Your task to perform on an android device: turn off improve location accuracy Image 0: 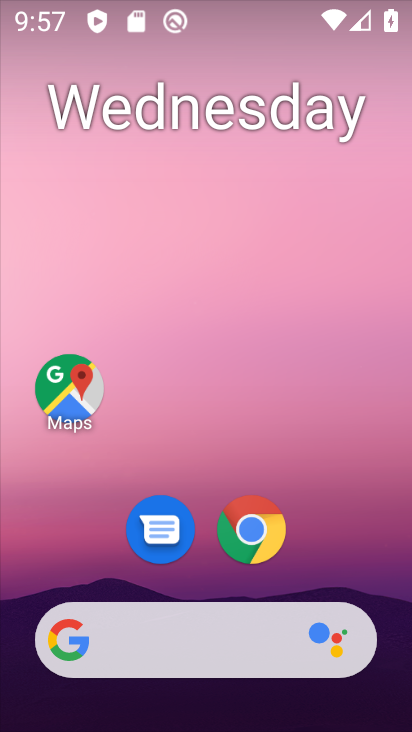
Step 0: drag from (250, 669) to (72, 60)
Your task to perform on an android device: turn off improve location accuracy Image 1: 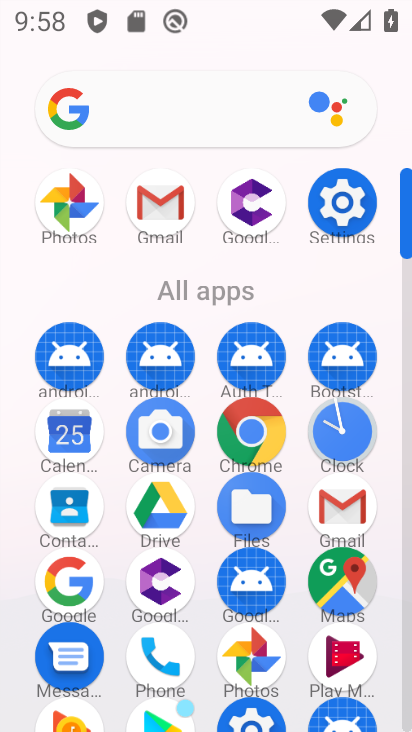
Step 1: drag from (309, 546) to (257, 292)
Your task to perform on an android device: turn off improve location accuracy Image 2: 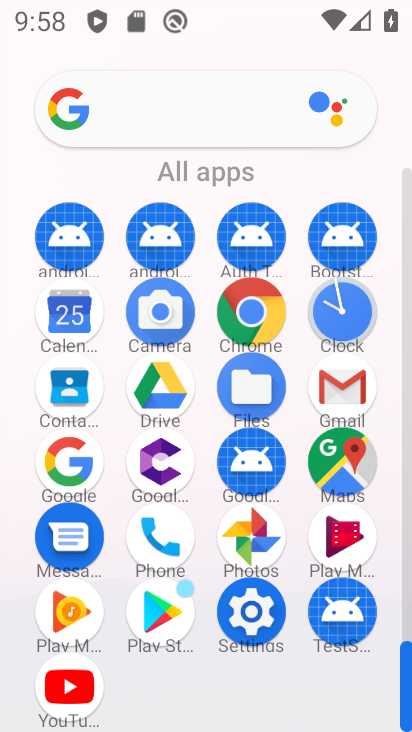
Step 2: drag from (270, 552) to (263, 316)
Your task to perform on an android device: turn off improve location accuracy Image 3: 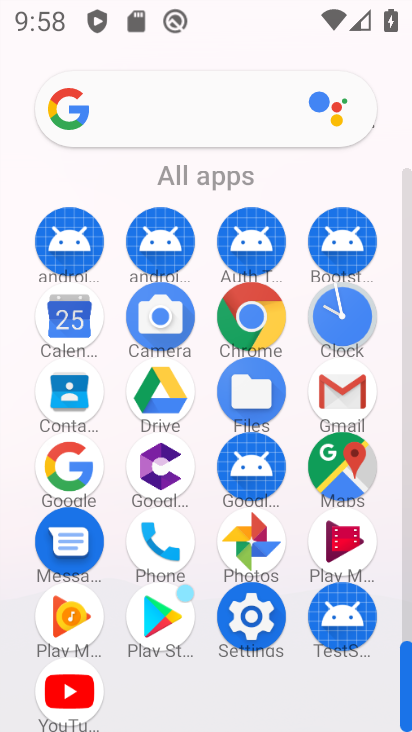
Step 3: click (251, 641)
Your task to perform on an android device: turn off improve location accuracy Image 4: 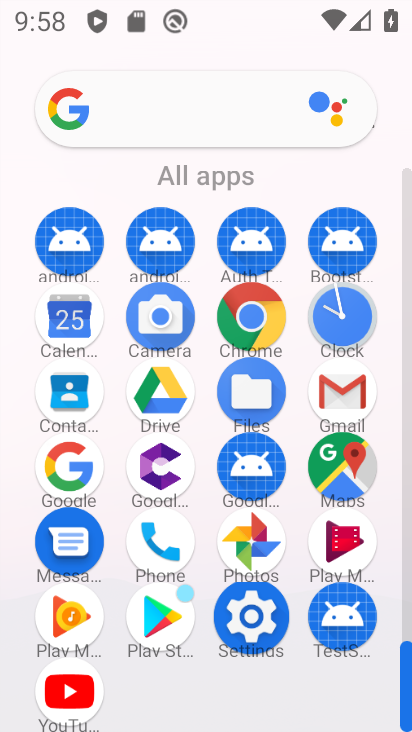
Step 4: click (250, 639)
Your task to perform on an android device: turn off improve location accuracy Image 5: 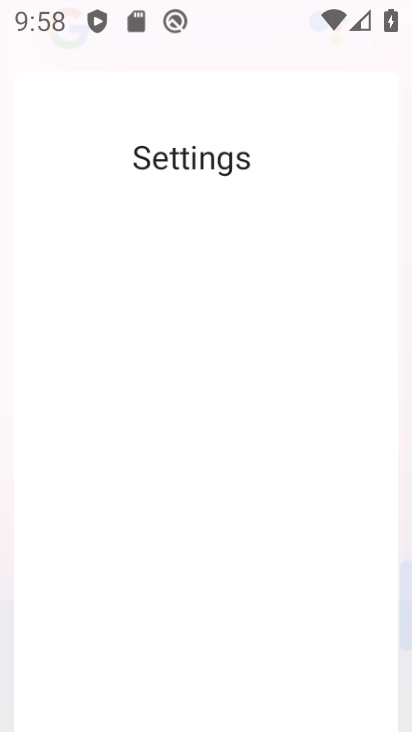
Step 5: click (250, 639)
Your task to perform on an android device: turn off improve location accuracy Image 6: 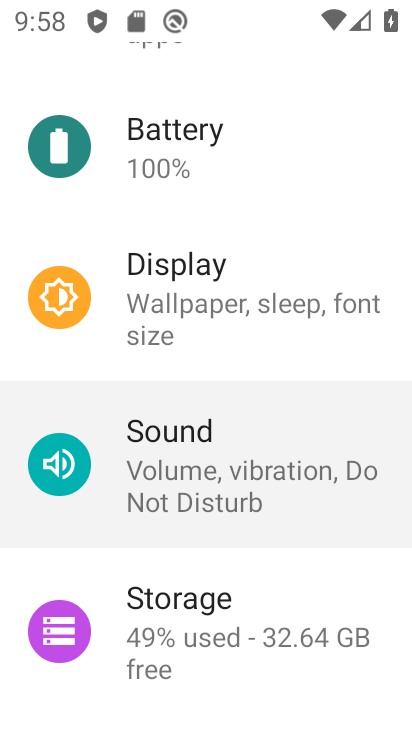
Step 6: click (253, 636)
Your task to perform on an android device: turn off improve location accuracy Image 7: 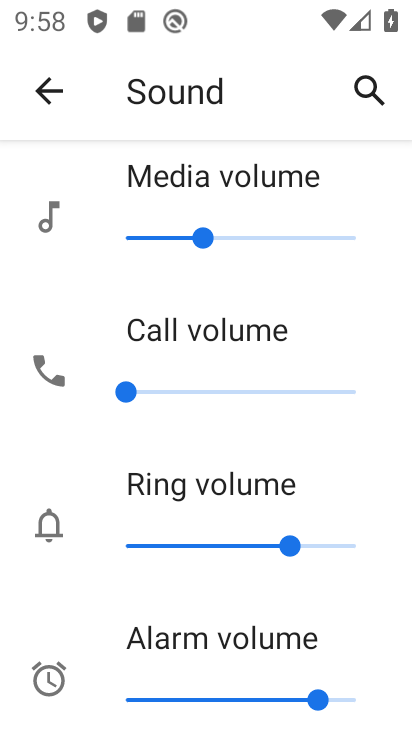
Step 7: click (35, 96)
Your task to perform on an android device: turn off improve location accuracy Image 8: 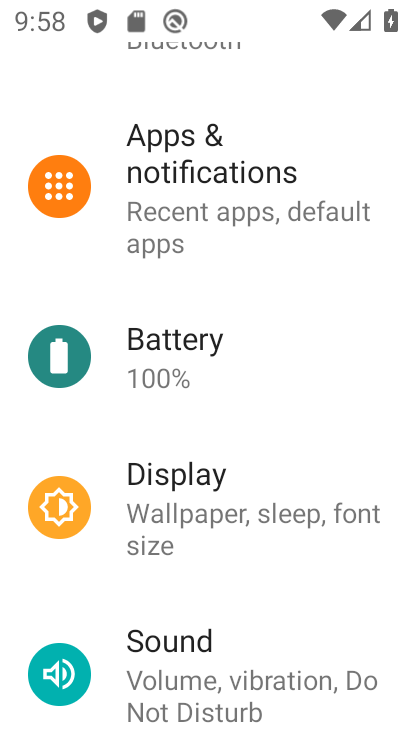
Step 8: click (47, 99)
Your task to perform on an android device: turn off improve location accuracy Image 9: 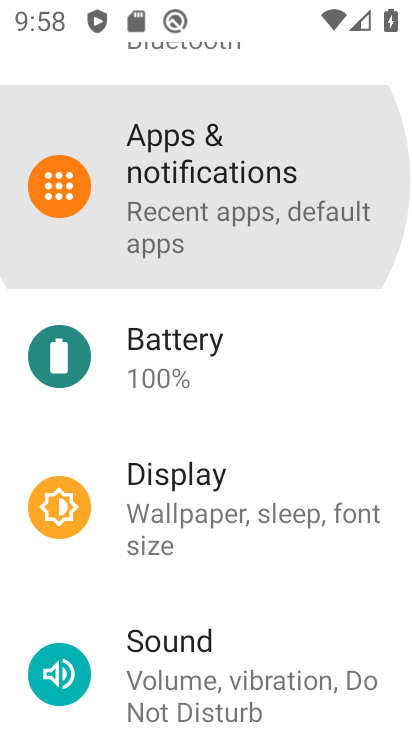
Step 9: click (47, 90)
Your task to perform on an android device: turn off improve location accuracy Image 10: 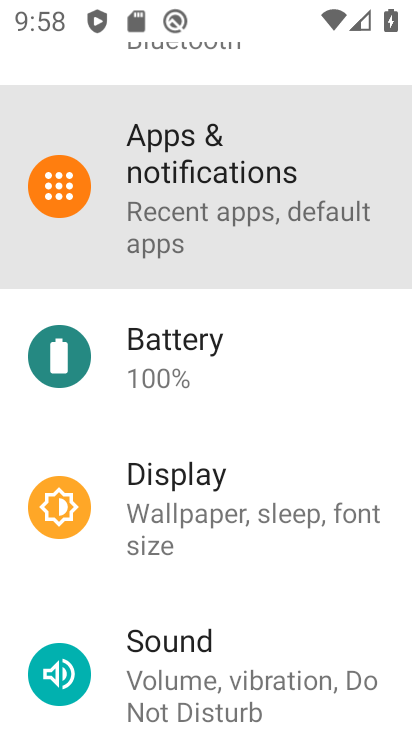
Step 10: click (48, 80)
Your task to perform on an android device: turn off improve location accuracy Image 11: 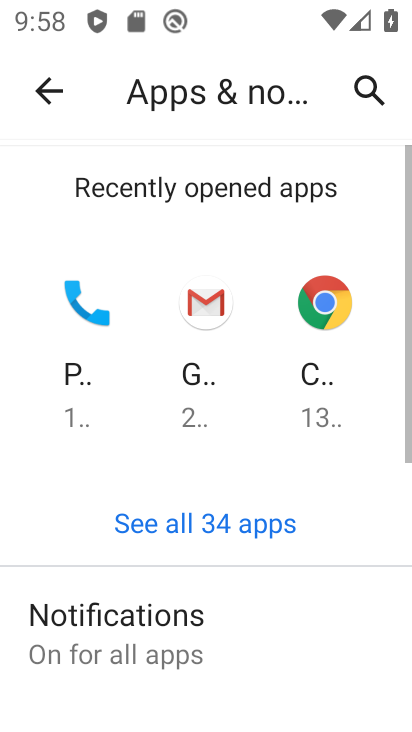
Step 11: click (38, 83)
Your task to perform on an android device: turn off improve location accuracy Image 12: 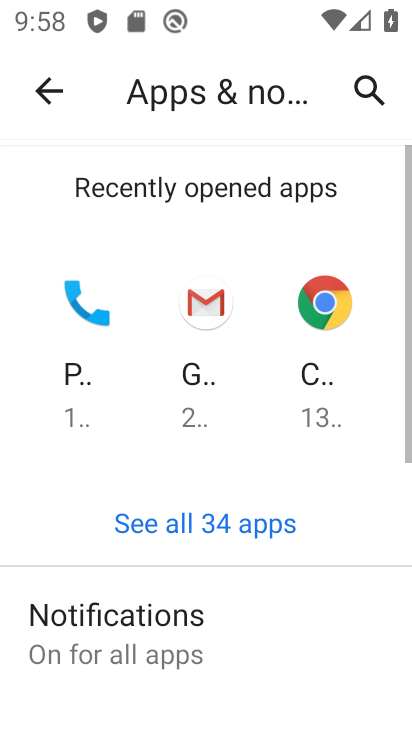
Step 12: click (39, 82)
Your task to perform on an android device: turn off improve location accuracy Image 13: 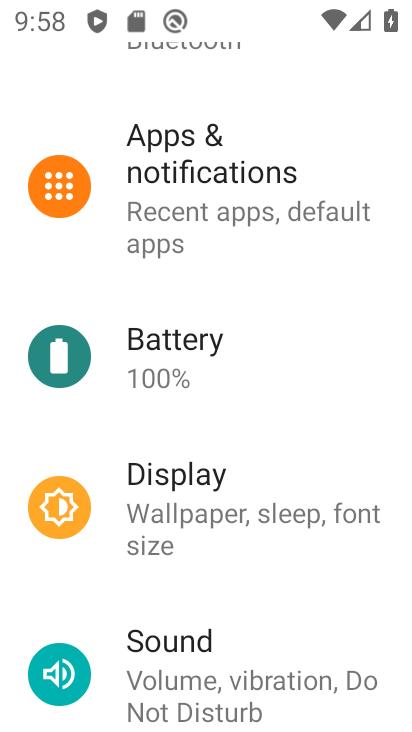
Step 13: drag from (196, 564) to (192, 296)
Your task to perform on an android device: turn off improve location accuracy Image 14: 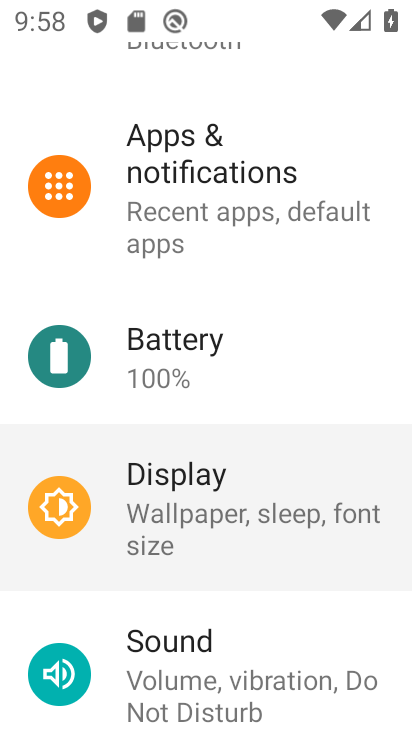
Step 14: drag from (208, 162) to (202, 115)
Your task to perform on an android device: turn off improve location accuracy Image 15: 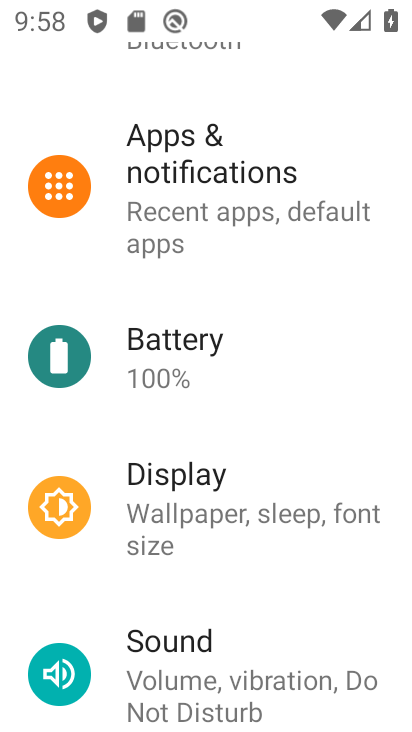
Step 15: click (225, 87)
Your task to perform on an android device: turn off improve location accuracy Image 16: 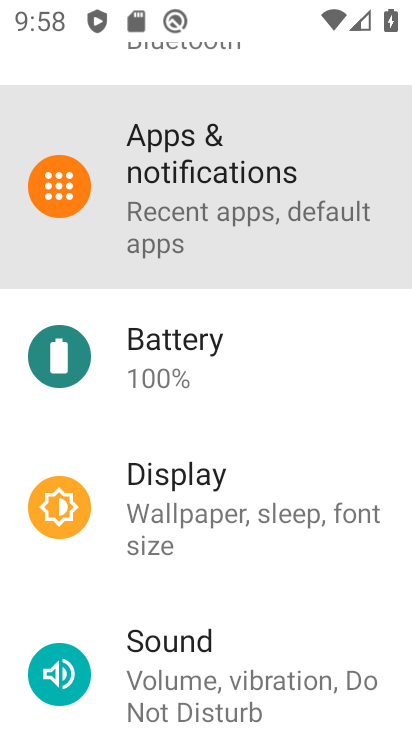
Step 16: drag from (162, 600) to (169, 133)
Your task to perform on an android device: turn off improve location accuracy Image 17: 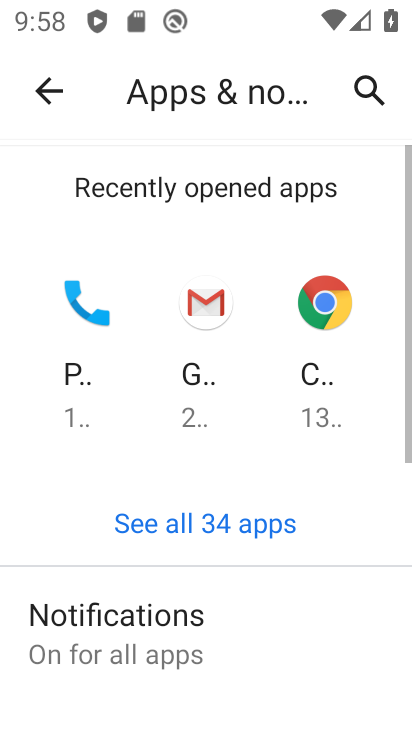
Step 17: drag from (229, 608) to (187, 261)
Your task to perform on an android device: turn off improve location accuracy Image 18: 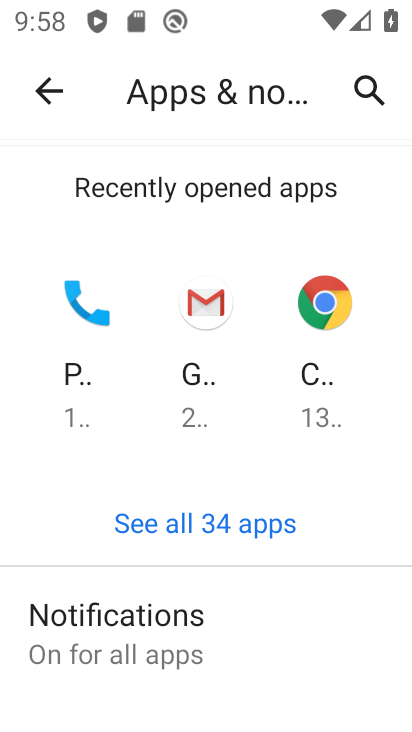
Step 18: drag from (216, 604) to (166, 287)
Your task to perform on an android device: turn off improve location accuracy Image 19: 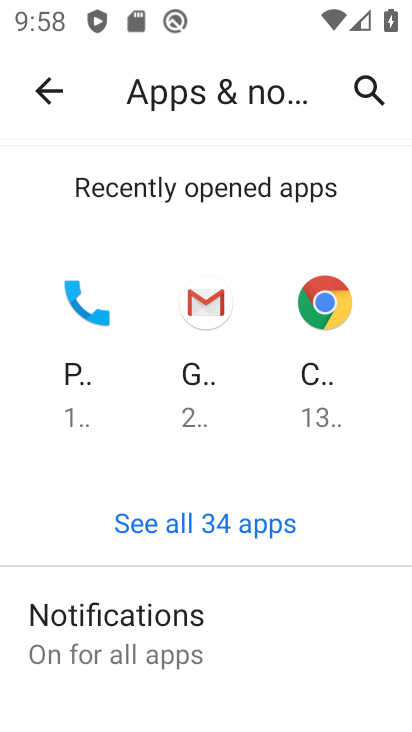
Step 19: drag from (283, 276) to (268, 204)
Your task to perform on an android device: turn off improve location accuracy Image 20: 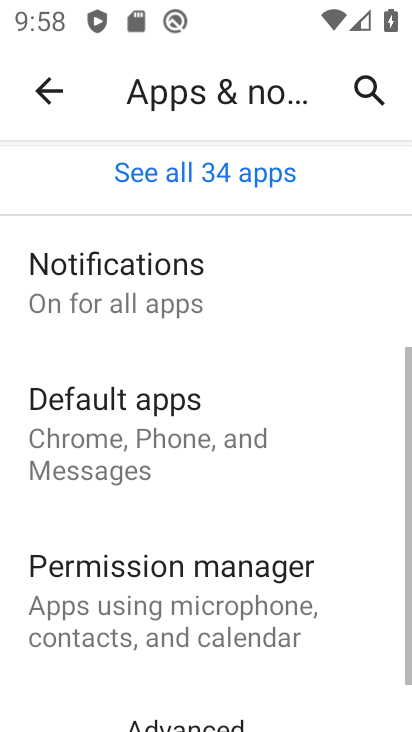
Step 20: drag from (258, 488) to (232, 148)
Your task to perform on an android device: turn off improve location accuracy Image 21: 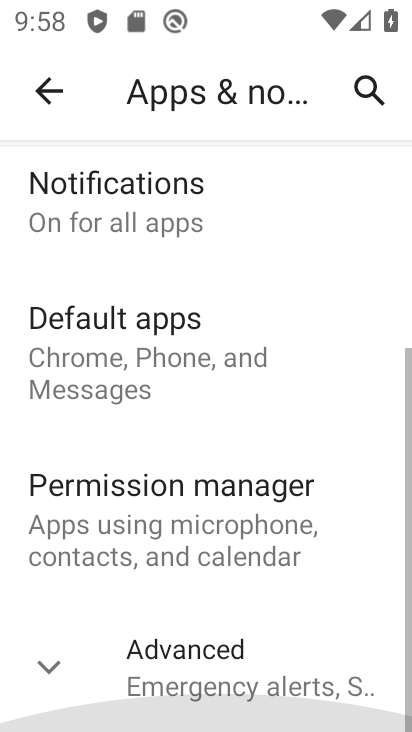
Step 21: drag from (259, 534) to (210, 119)
Your task to perform on an android device: turn off improve location accuracy Image 22: 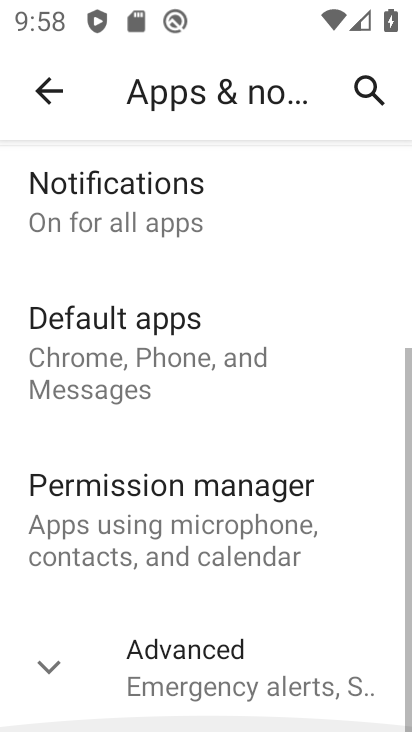
Step 22: drag from (239, 561) to (226, 197)
Your task to perform on an android device: turn off improve location accuracy Image 23: 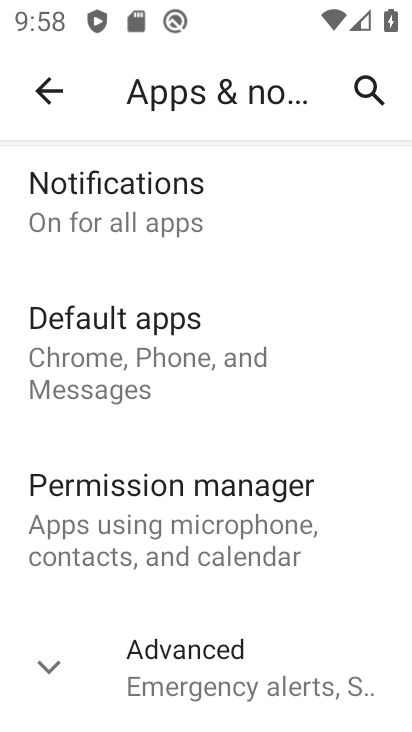
Step 23: click (99, 237)
Your task to perform on an android device: turn off improve location accuracy Image 24: 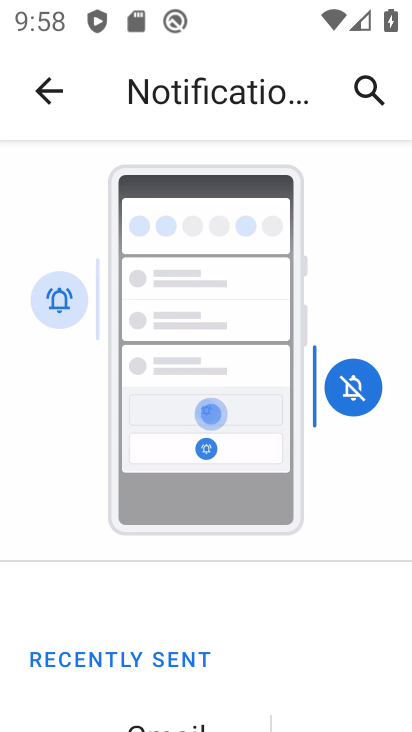
Step 24: drag from (220, 545) to (143, 28)
Your task to perform on an android device: turn off improve location accuracy Image 25: 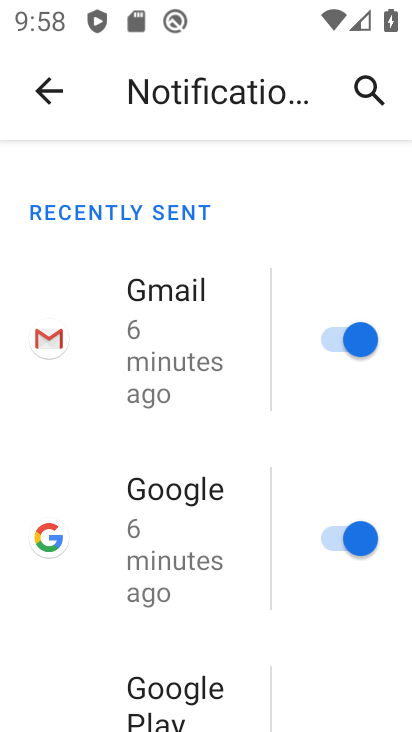
Step 25: drag from (286, 0) to (149, 111)
Your task to perform on an android device: turn off improve location accuracy Image 26: 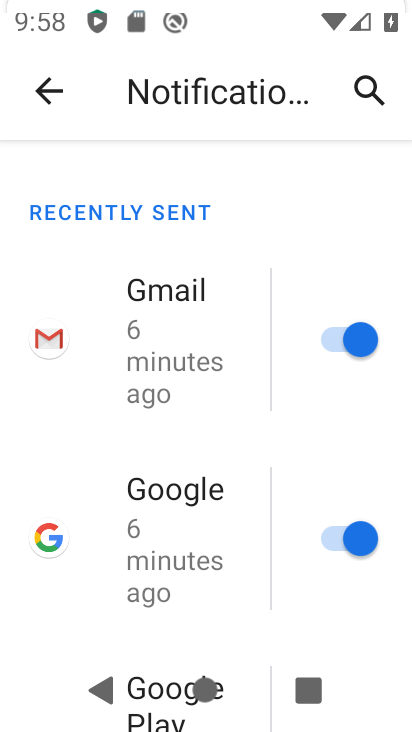
Step 26: drag from (152, 431) to (147, 276)
Your task to perform on an android device: turn off improve location accuracy Image 27: 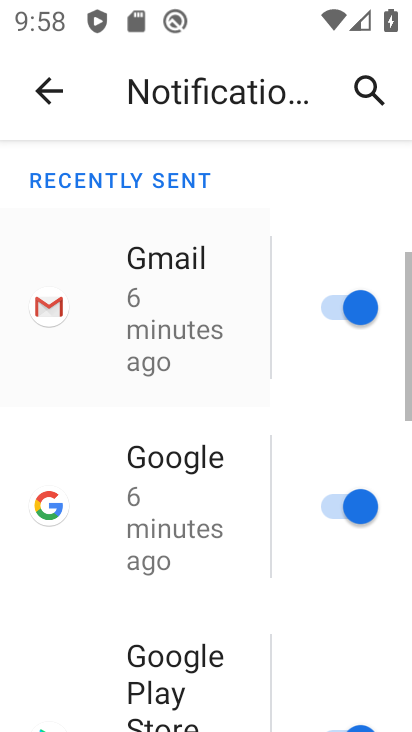
Step 27: drag from (167, 478) to (131, 177)
Your task to perform on an android device: turn off improve location accuracy Image 28: 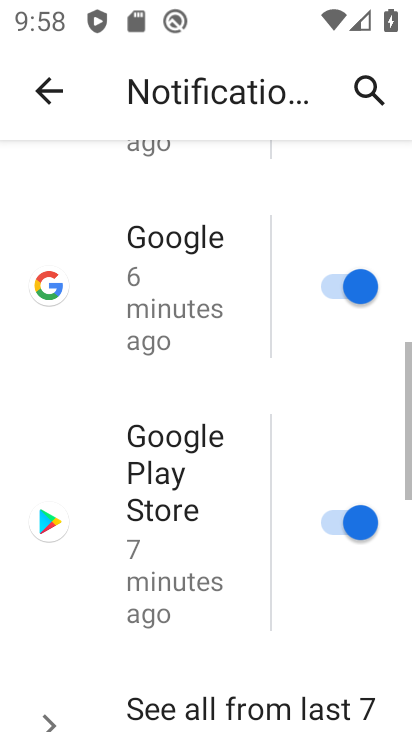
Step 28: drag from (214, 482) to (168, 171)
Your task to perform on an android device: turn off improve location accuracy Image 29: 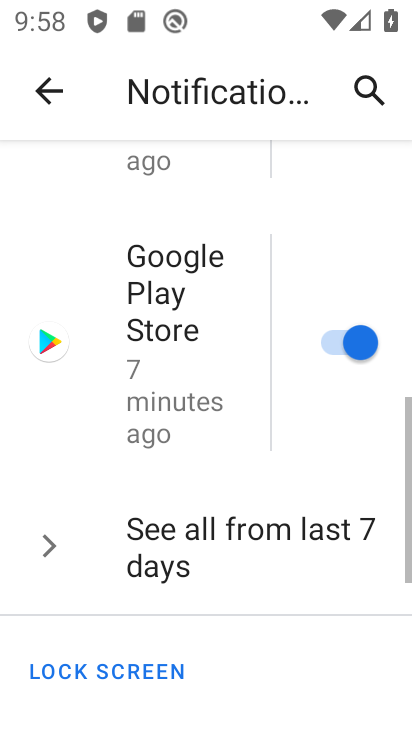
Step 29: drag from (177, 475) to (139, 106)
Your task to perform on an android device: turn off improve location accuracy Image 30: 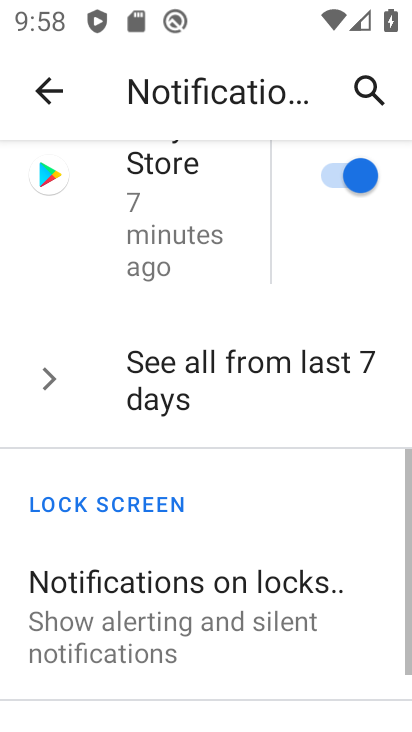
Step 30: drag from (203, 511) to (203, 114)
Your task to perform on an android device: turn off improve location accuracy Image 31: 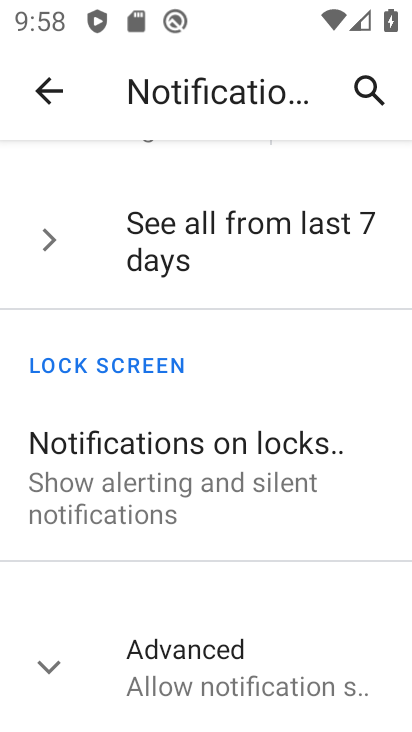
Step 31: drag from (163, 405) to (166, 163)
Your task to perform on an android device: turn off improve location accuracy Image 32: 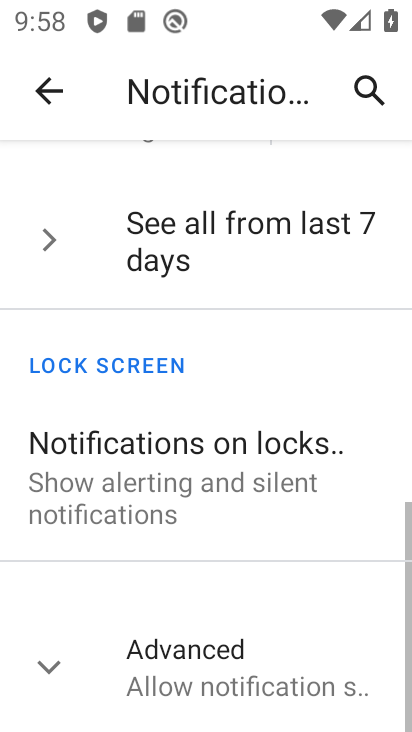
Step 32: click (209, 682)
Your task to perform on an android device: turn off improve location accuracy Image 33: 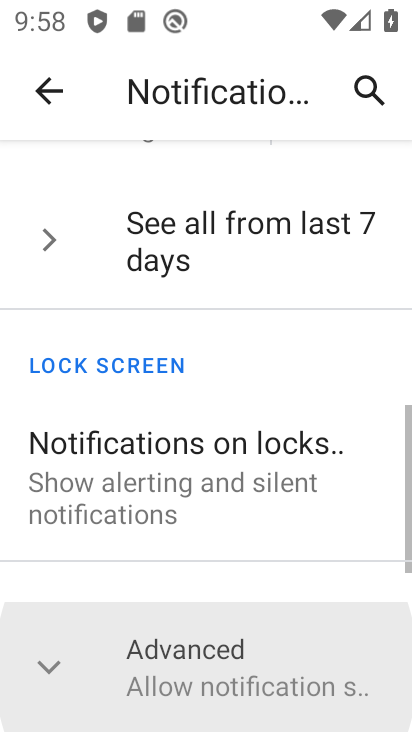
Step 33: click (209, 682)
Your task to perform on an android device: turn off improve location accuracy Image 34: 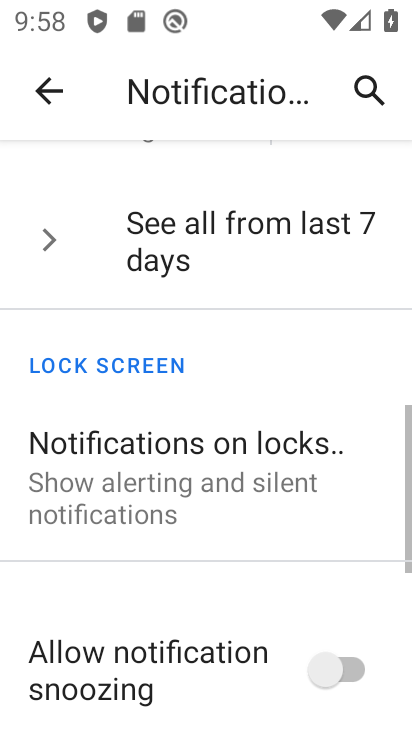
Step 34: click (209, 682)
Your task to perform on an android device: turn off improve location accuracy Image 35: 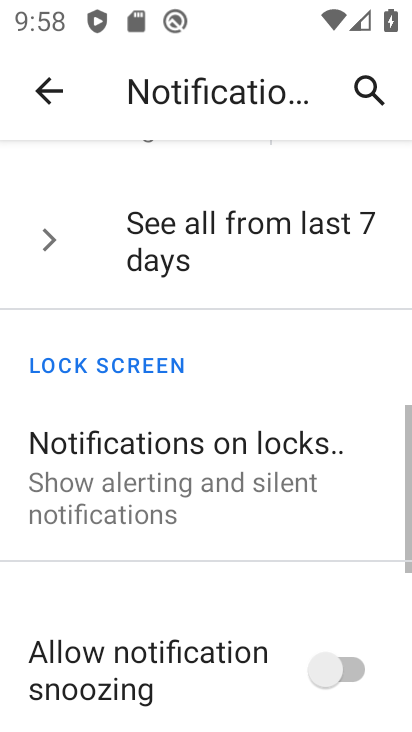
Step 35: click (317, 667)
Your task to perform on an android device: turn off improve location accuracy Image 36: 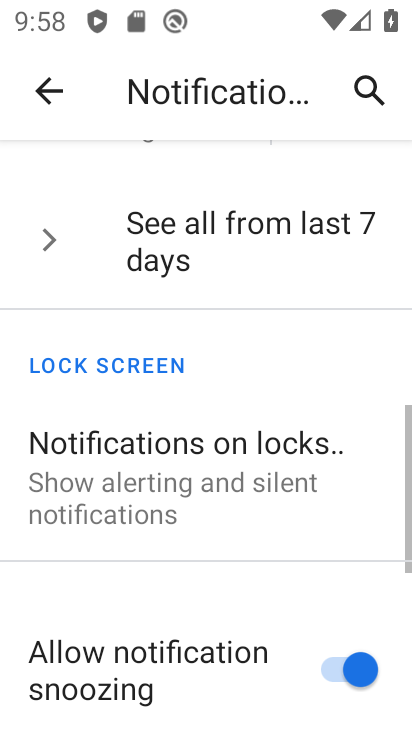
Step 36: drag from (244, 647) to (242, 145)
Your task to perform on an android device: turn off improve location accuracy Image 37: 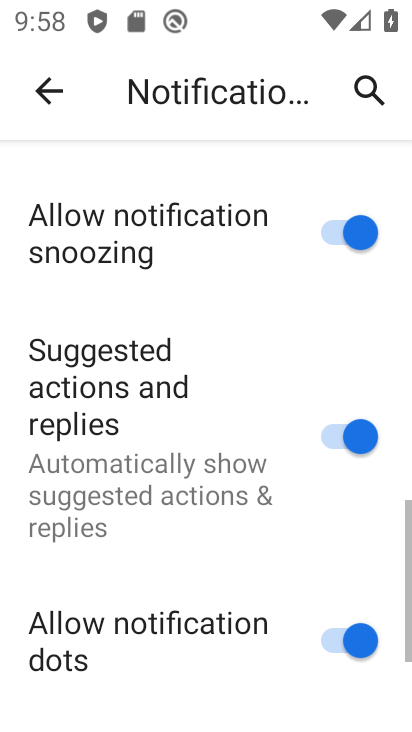
Step 37: drag from (242, 557) to (274, 227)
Your task to perform on an android device: turn off improve location accuracy Image 38: 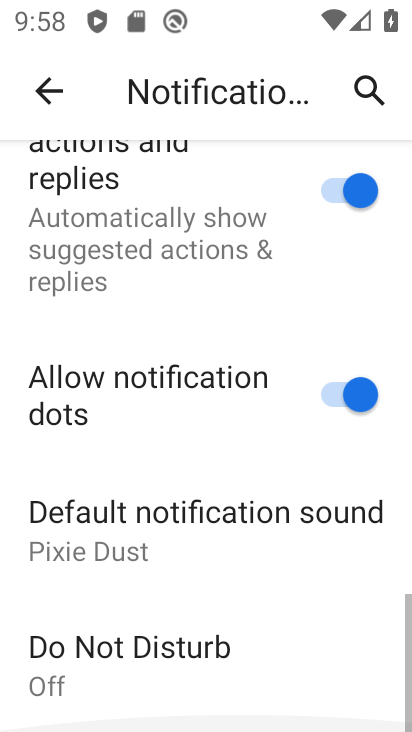
Step 38: drag from (227, 602) to (227, 120)
Your task to perform on an android device: turn off improve location accuracy Image 39: 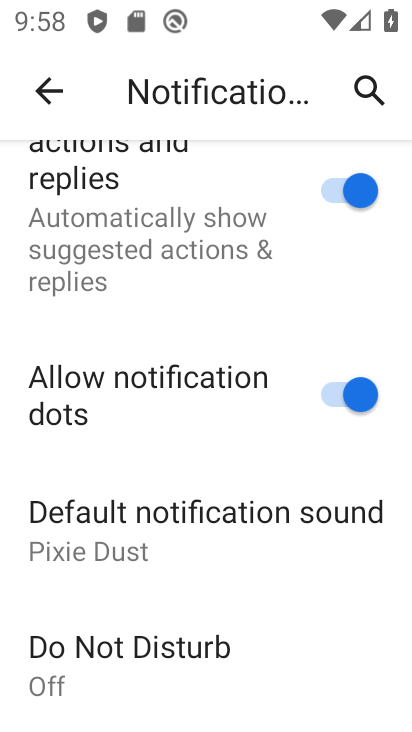
Step 39: click (364, 394)
Your task to perform on an android device: turn off improve location accuracy Image 40: 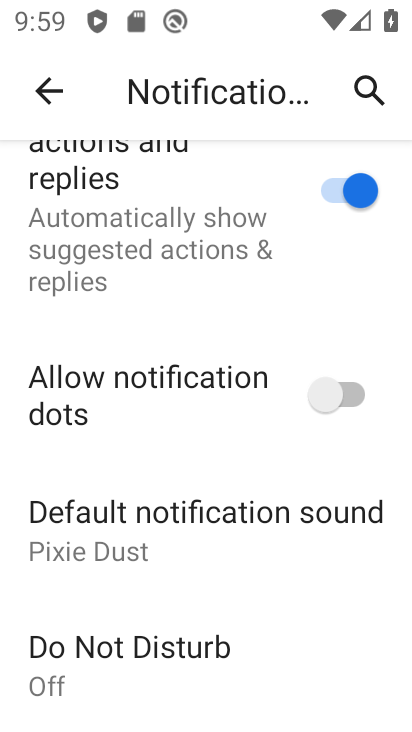
Step 40: task complete